Your task to perform on an android device: turn on airplane mode Image 0: 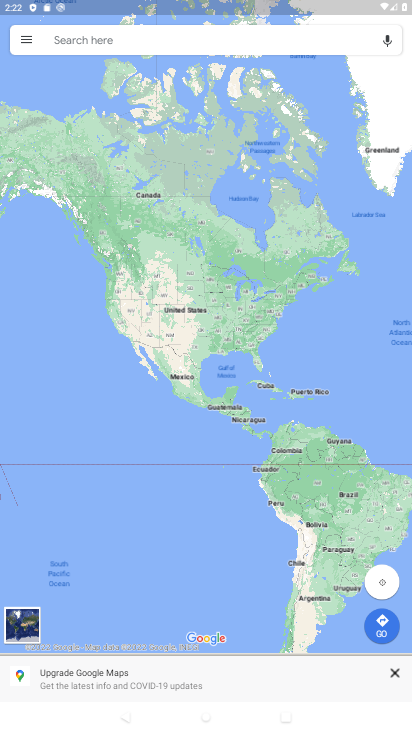
Step 0: press home button
Your task to perform on an android device: turn on airplane mode Image 1: 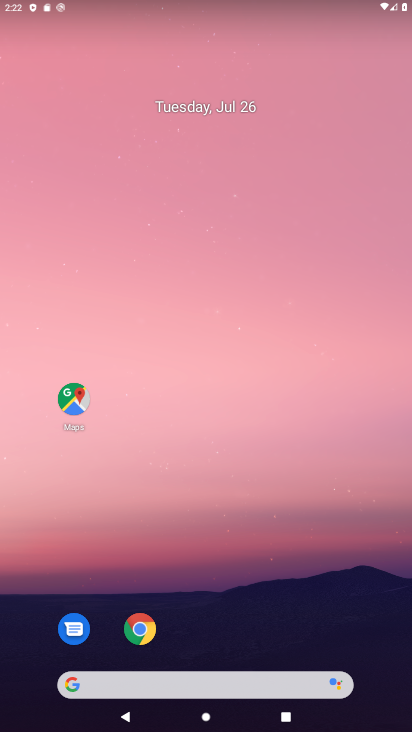
Step 1: drag from (241, 245) to (184, 34)
Your task to perform on an android device: turn on airplane mode Image 2: 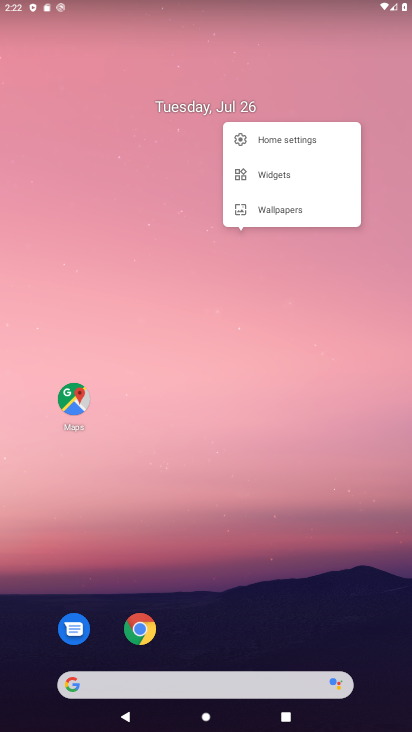
Step 2: click (205, 376)
Your task to perform on an android device: turn on airplane mode Image 3: 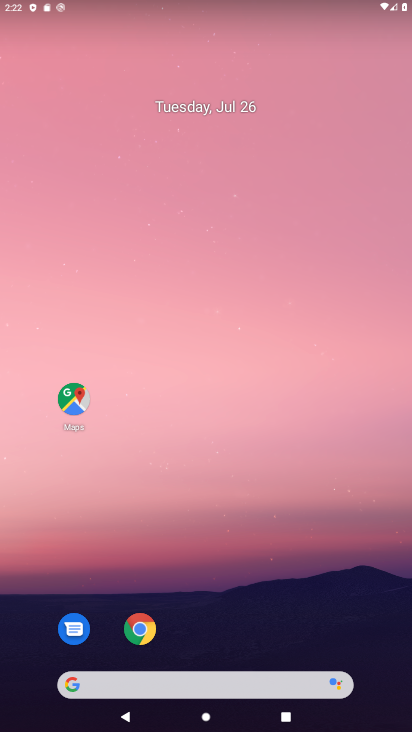
Step 3: drag from (279, 621) to (287, 169)
Your task to perform on an android device: turn on airplane mode Image 4: 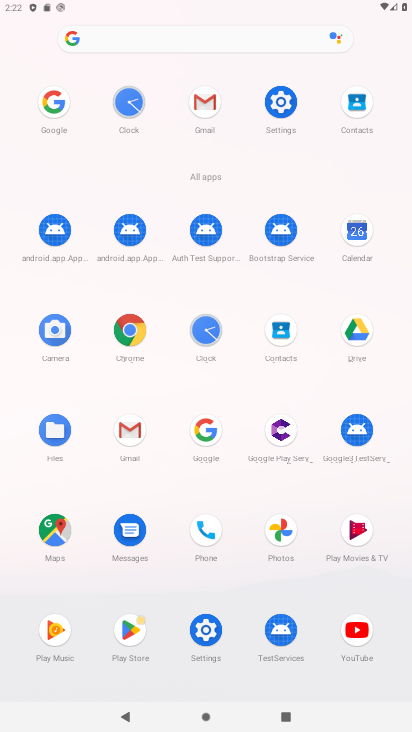
Step 4: click (286, 91)
Your task to perform on an android device: turn on airplane mode Image 5: 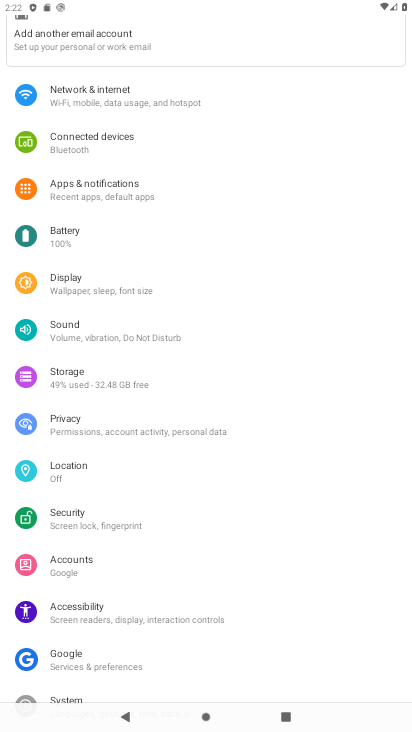
Step 5: click (92, 89)
Your task to perform on an android device: turn on airplane mode Image 6: 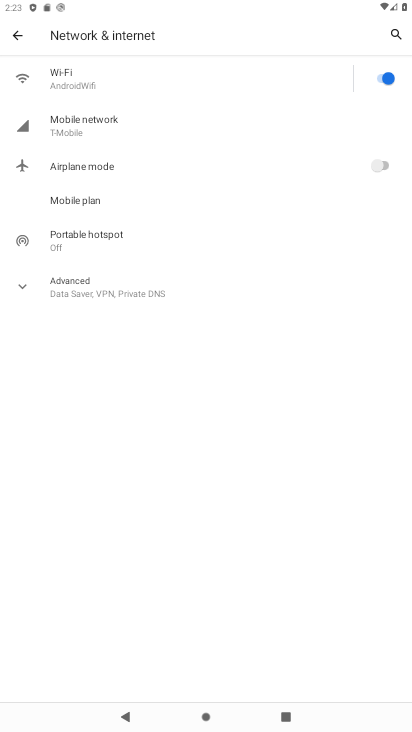
Step 6: click (397, 169)
Your task to perform on an android device: turn on airplane mode Image 7: 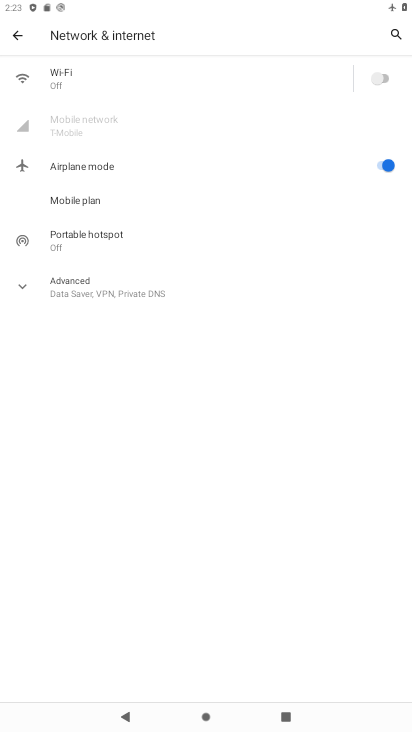
Step 7: task complete